Your task to perform on an android device: turn off sleep mode Image 0: 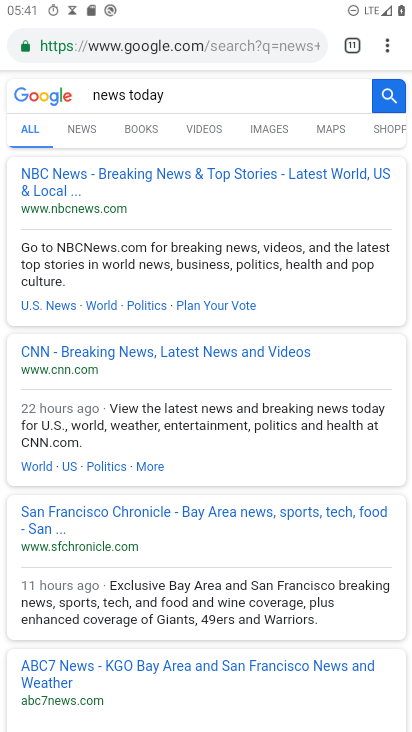
Step 0: press home button
Your task to perform on an android device: turn off sleep mode Image 1: 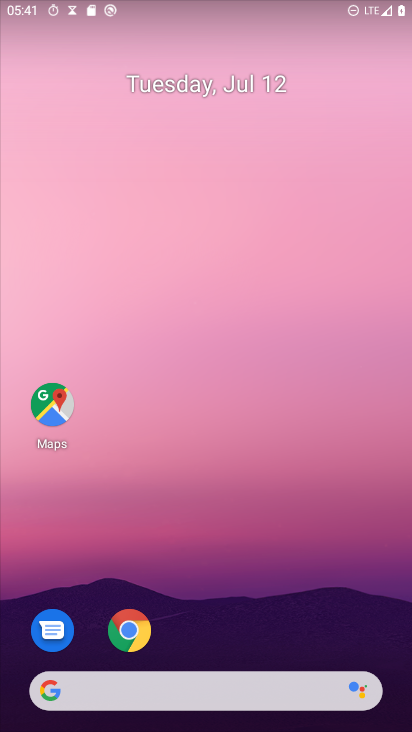
Step 1: drag from (201, 670) to (225, 13)
Your task to perform on an android device: turn off sleep mode Image 2: 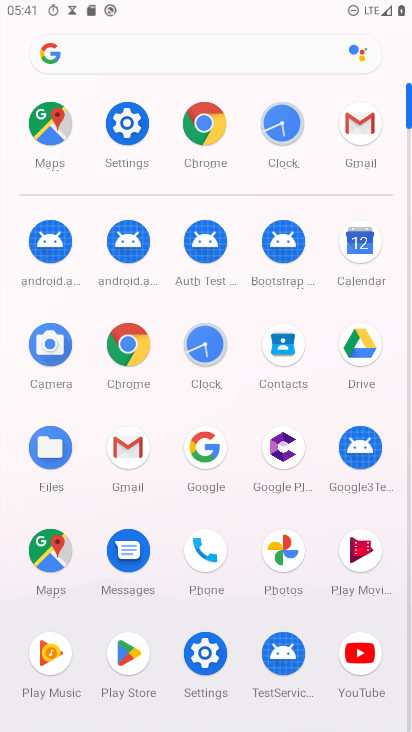
Step 2: click (119, 120)
Your task to perform on an android device: turn off sleep mode Image 3: 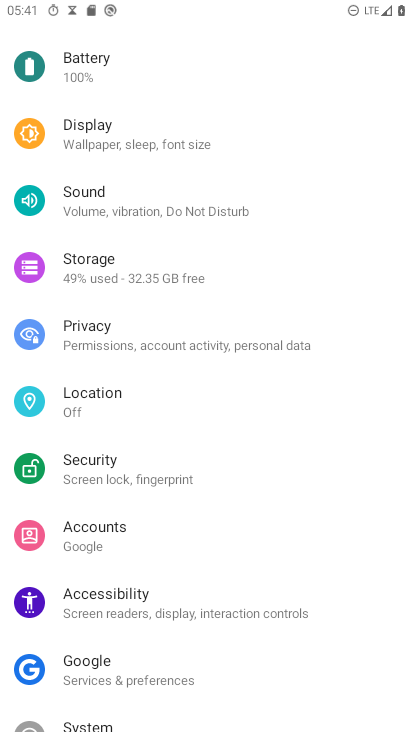
Step 3: click (152, 140)
Your task to perform on an android device: turn off sleep mode Image 4: 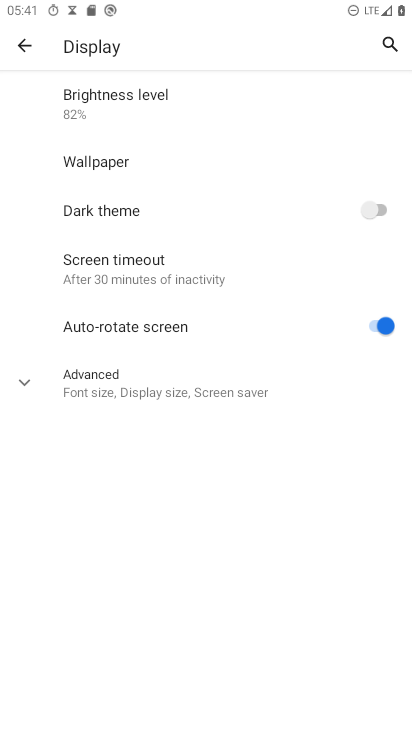
Step 4: task complete